Your task to perform on an android device: Go to Maps Image 0: 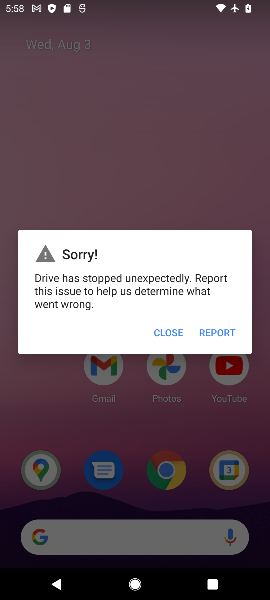
Step 0: press home button
Your task to perform on an android device: Go to Maps Image 1: 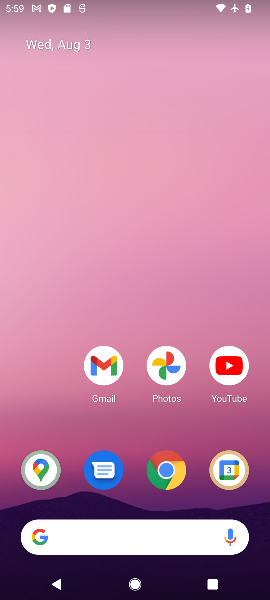
Step 1: drag from (139, 417) to (191, 78)
Your task to perform on an android device: Go to Maps Image 2: 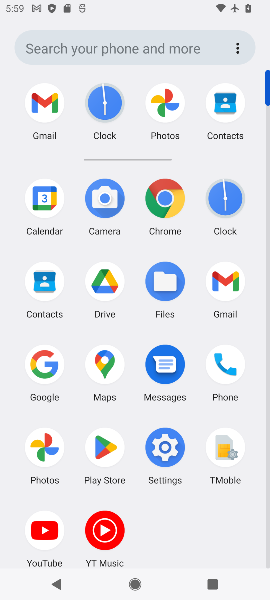
Step 2: click (97, 355)
Your task to perform on an android device: Go to Maps Image 3: 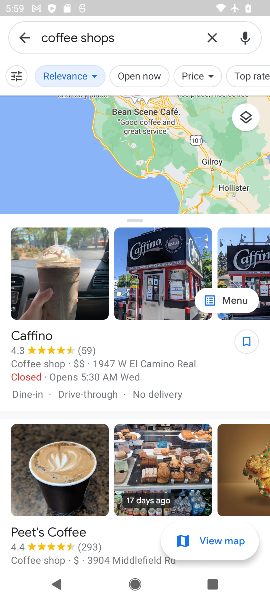
Step 3: task complete